Your task to perform on an android device: Open Yahoo.com Image 0: 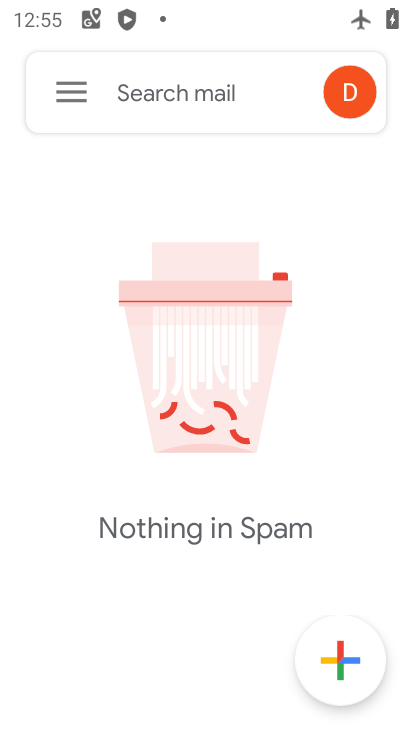
Step 0: press home button
Your task to perform on an android device: Open Yahoo.com Image 1: 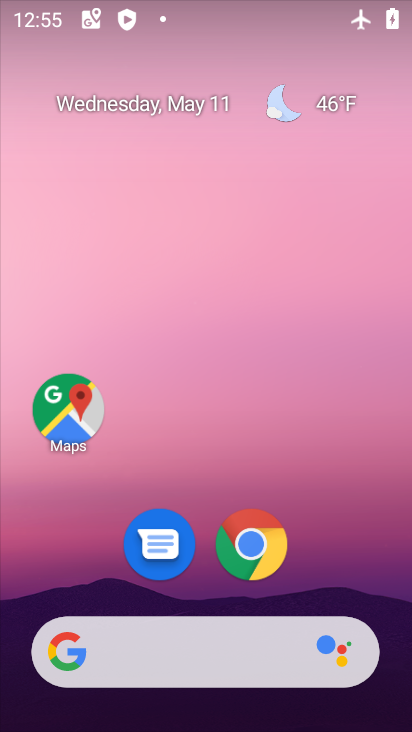
Step 1: click (247, 546)
Your task to perform on an android device: Open Yahoo.com Image 2: 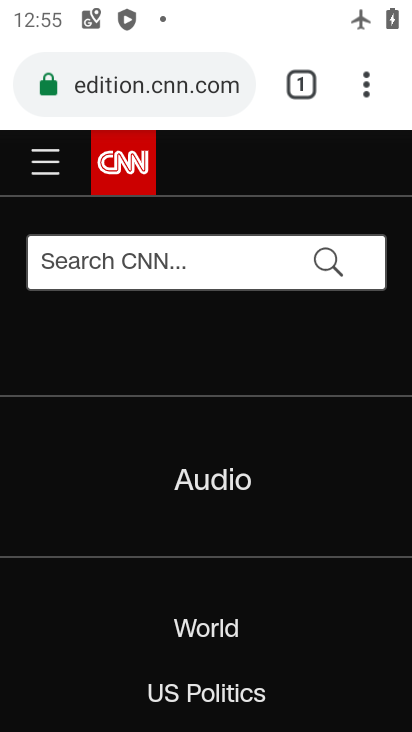
Step 2: click (117, 81)
Your task to perform on an android device: Open Yahoo.com Image 3: 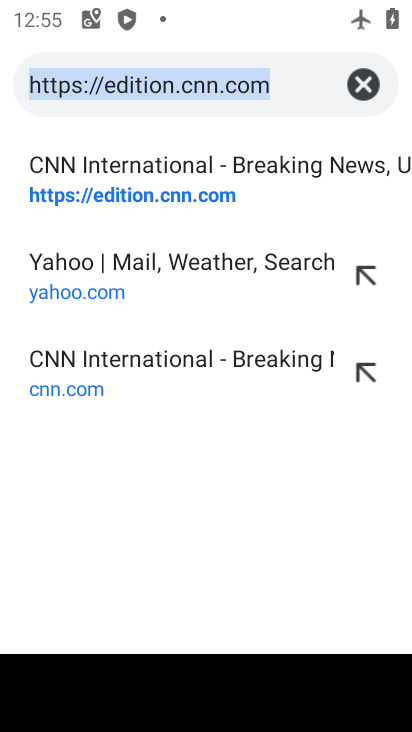
Step 3: click (357, 81)
Your task to perform on an android device: Open Yahoo.com Image 4: 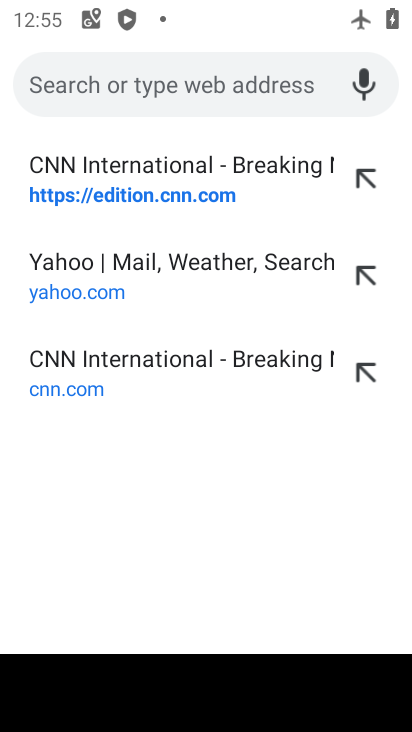
Step 4: type "yahoo.com"
Your task to perform on an android device: Open Yahoo.com Image 5: 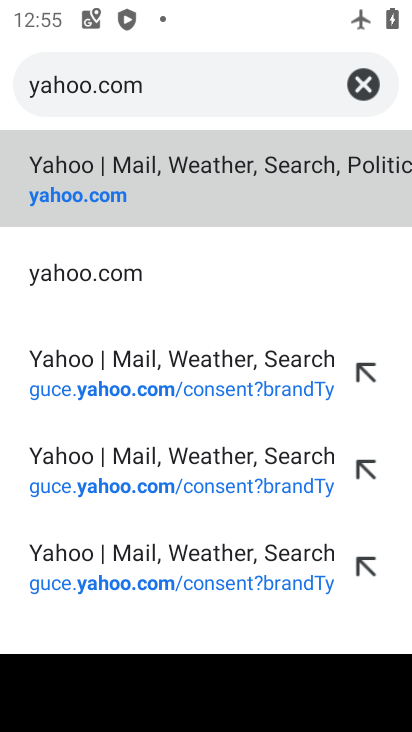
Step 5: click (73, 184)
Your task to perform on an android device: Open Yahoo.com Image 6: 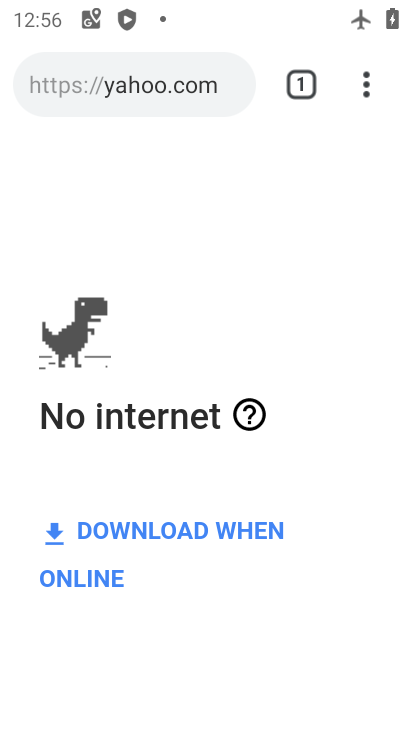
Step 6: task complete